Your task to perform on an android device: clear all cookies in the chrome app Image 0: 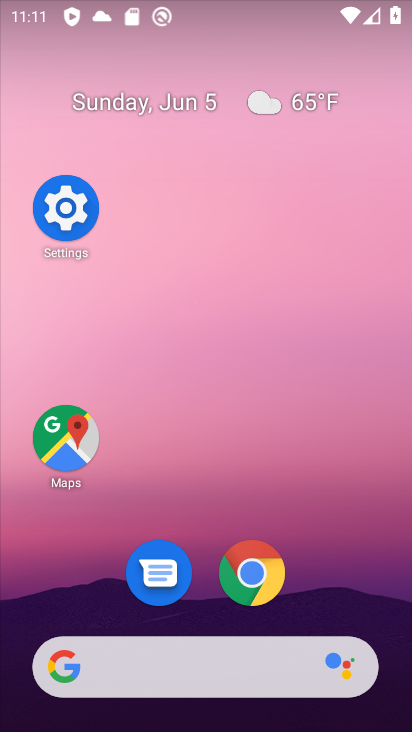
Step 0: click (258, 563)
Your task to perform on an android device: clear all cookies in the chrome app Image 1: 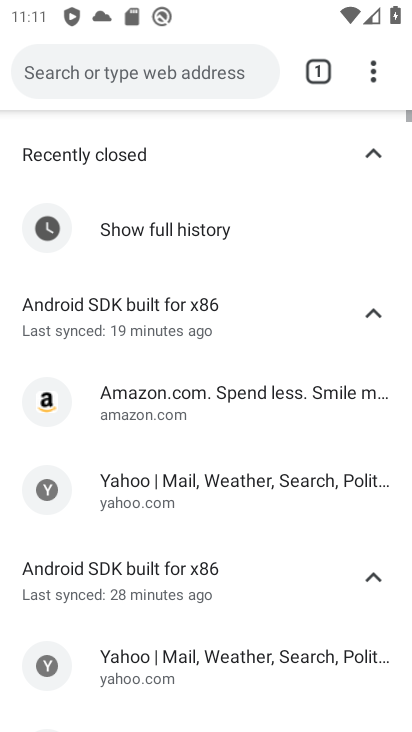
Step 1: click (373, 82)
Your task to perform on an android device: clear all cookies in the chrome app Image 2: 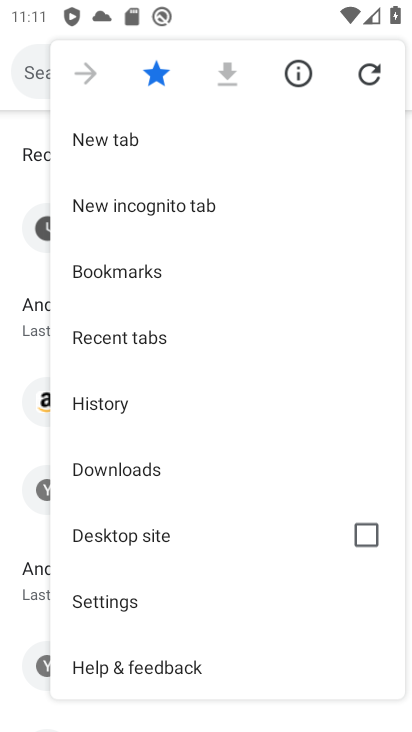
Step 2: drag from (214, 530) to (254, 184)
Your task to perform on an android device: clear all cookies in the chrome app Image 3: 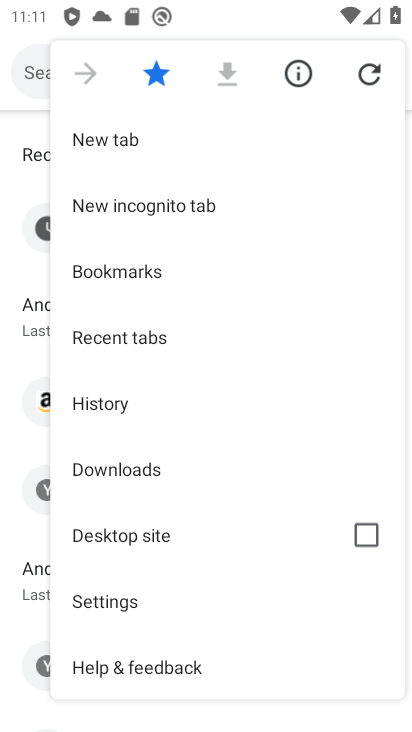
Step 3: click (106, 609)
Your task to perform on an android device: clear all cookies in the chrome app Image 4: 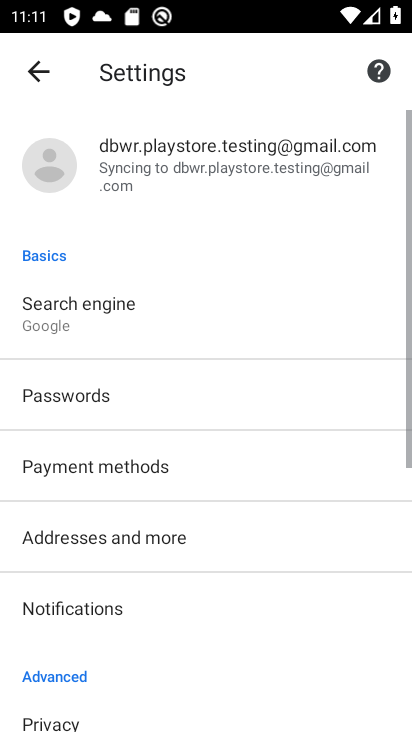
Step 4: drag from (185, 530) to (234, 220)
Your task to perform on an android device: clear all cookies in the chrome app Image 5: 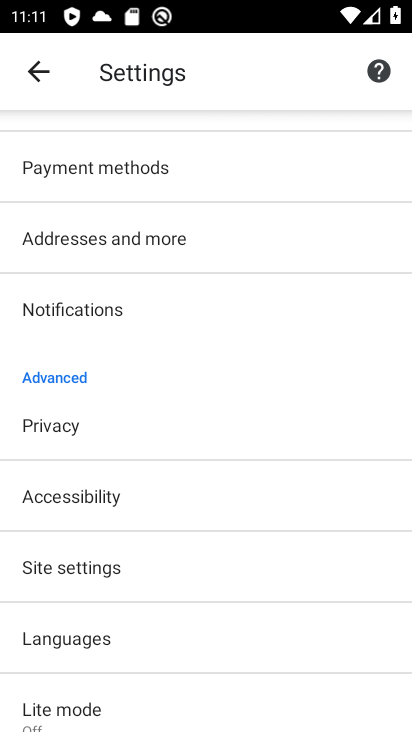
Step 5: click (107, 399)
Your task to perform on an android device: clear all cookies in the chrome app Image 6: 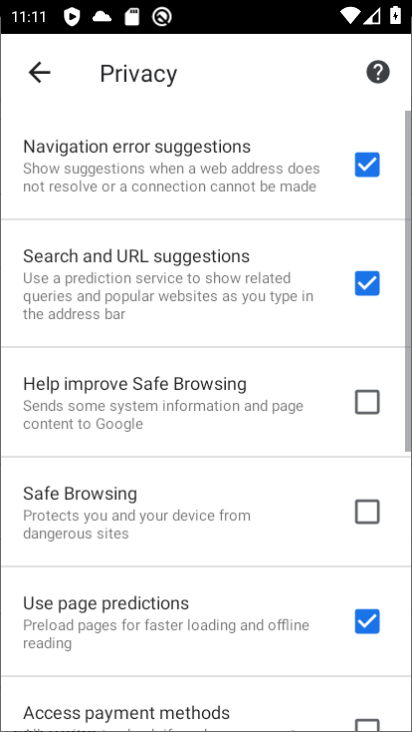
Step 6: click (105, 437)
Your task to perform on an android device: clear all cookies in the chrome app Image 7: 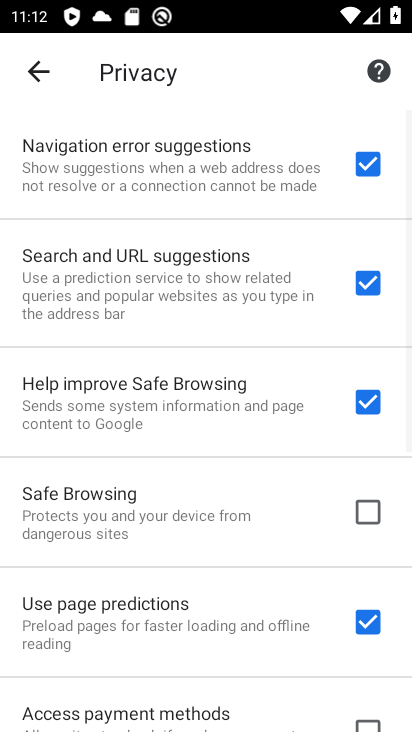
Step 7: drag from (186, 538) to (261, 193)
Your task to perform on an android device: clear all cookies in the chrome app Image 8: 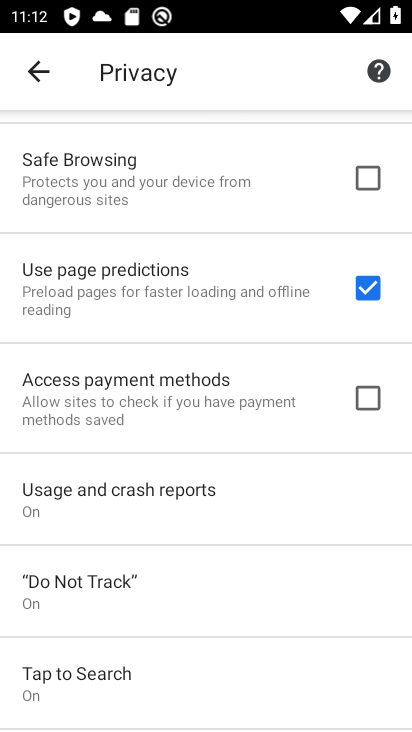
Step 8: drag from (215, 556) to (227, 202)
Your task to perform on an android device: clear all cookies in the chrome app Image 9: 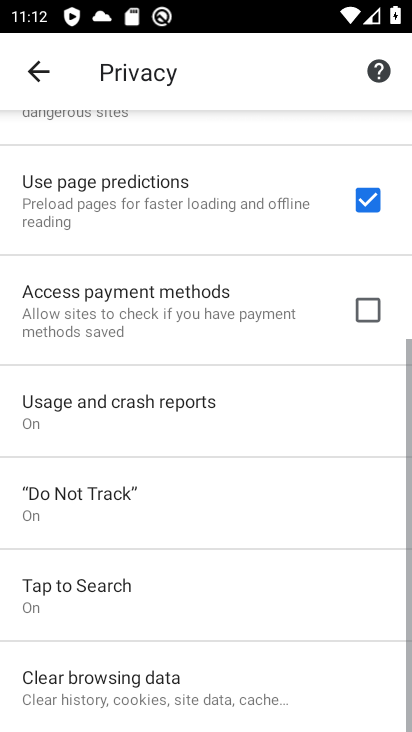
Step 9: click (203, 672)
Your task to perform on an android device: clear all cookies in the chrome app Image 10: 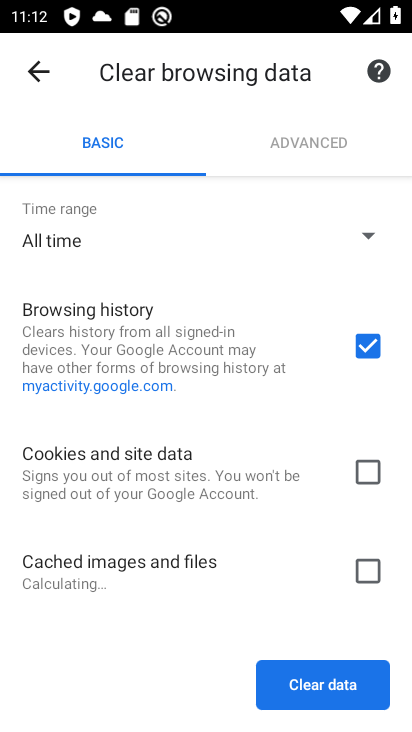
Step 10: drag from (201, 618) to (229, 385)
Your task to perform on an android device: clear all cookies in the chrome app Image 11: 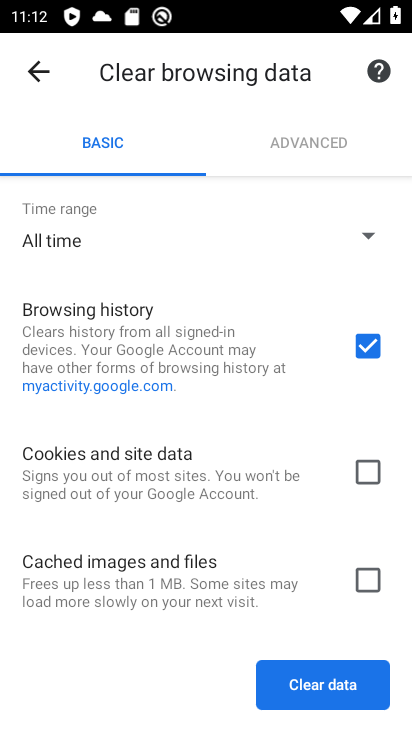
Step 11: click (355, 454)
Your task to perform on an android device: clear all cookies in the chrome app Image 12: 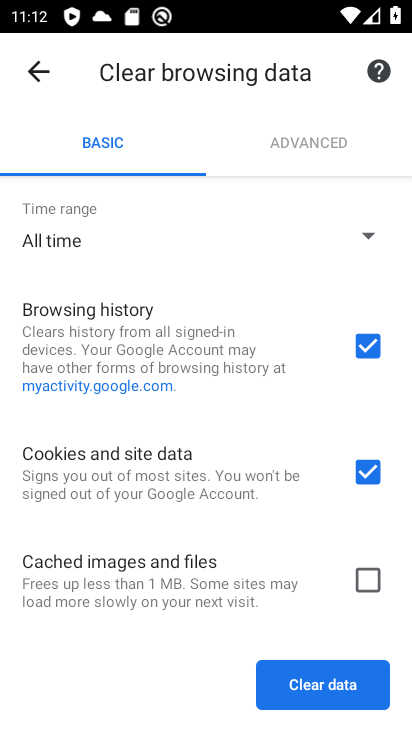
Step 12: click (318, 684)
Your task to perform on an android device: clear all cookies in the chrome app Image 13: 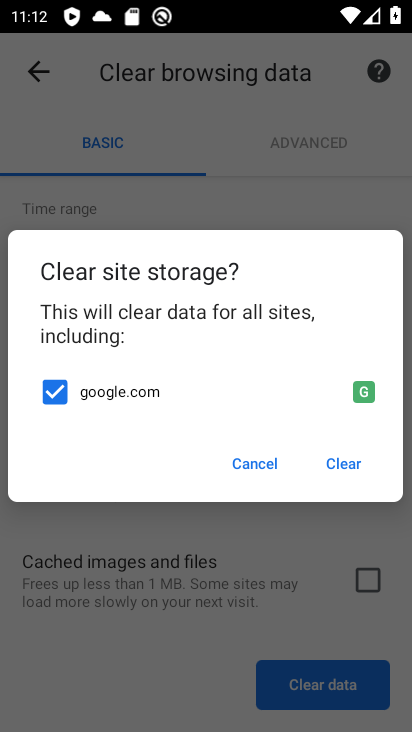
Step 13: click (359, 471)
Your task to perform on an android device: clear all cookies in the chrome app Image 14: 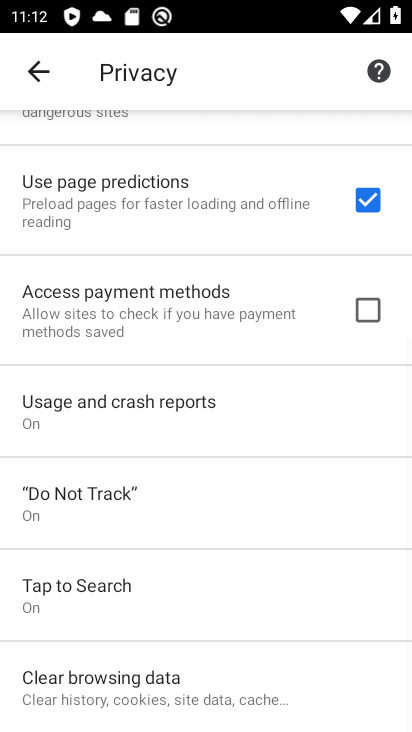
Step 14: task complete